Your task to perform on an android device: Clear the shopping cart on newegg.com. Image 0: 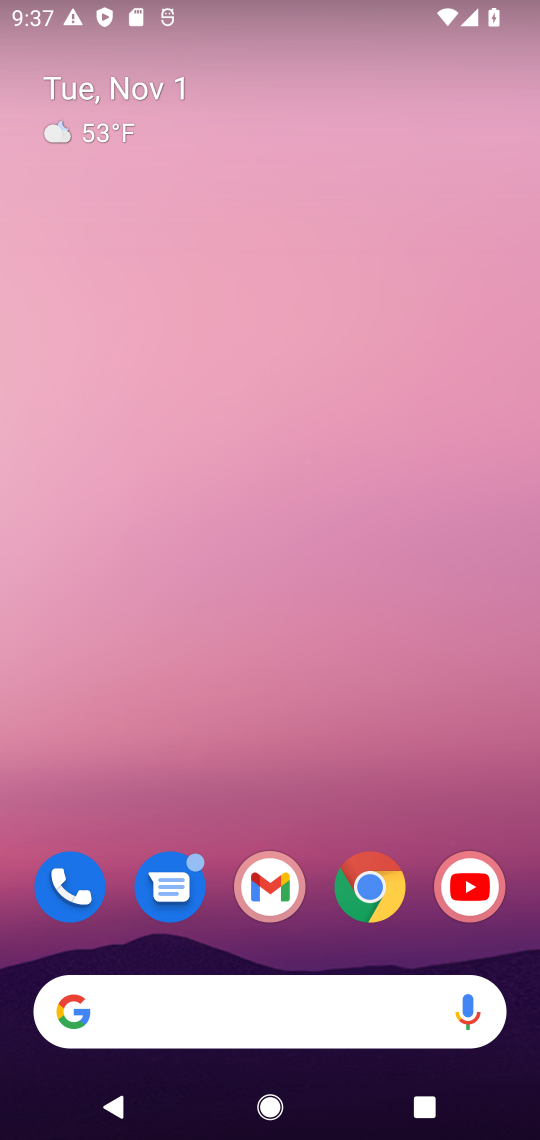
Step 0: drag from (325, 688) to (347, 284)
Your task to perform on an android device: Clear the shopping cart on newegg.com. Image 1: 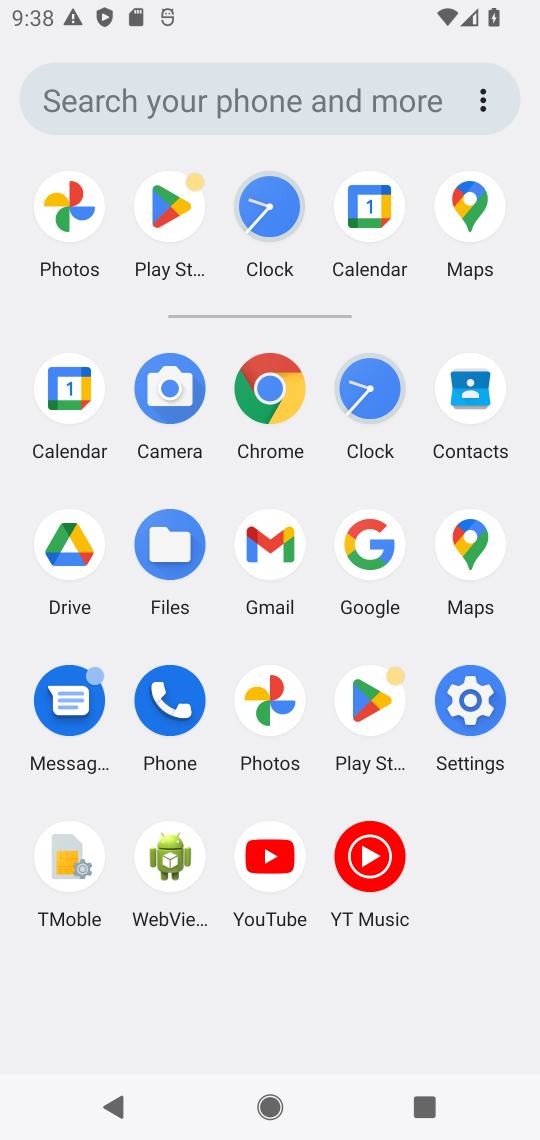
Step 1: click (371, 545)
Your task to perform on an android device: Clear the shopping cart on newegg.com. Image 2: 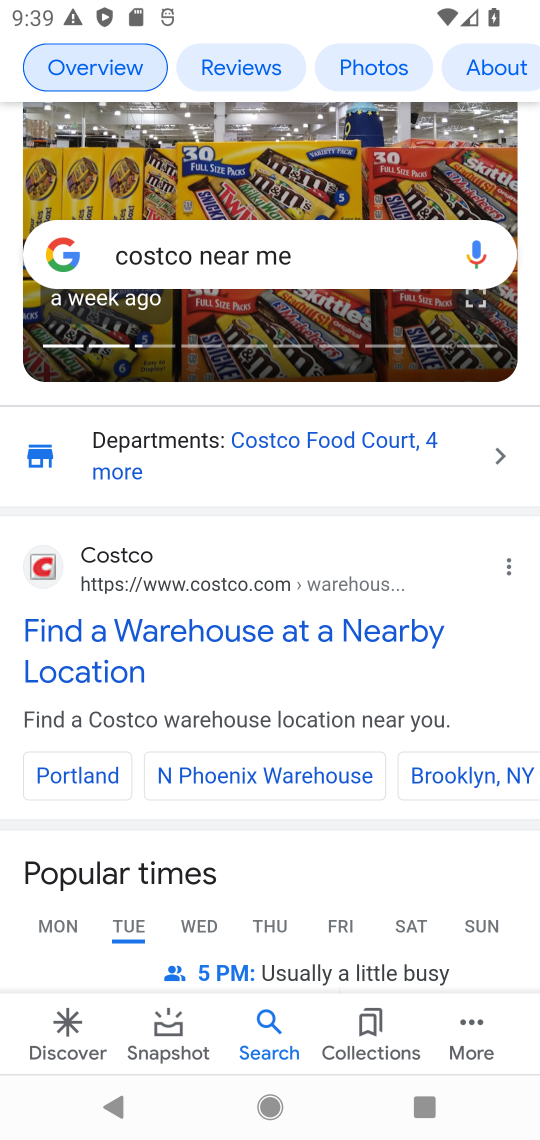
Step 2: drag from (233, 262) to (254, 931)
Your task to perform on an android device: Clear the shopping cart on newegg.com. Image 3: 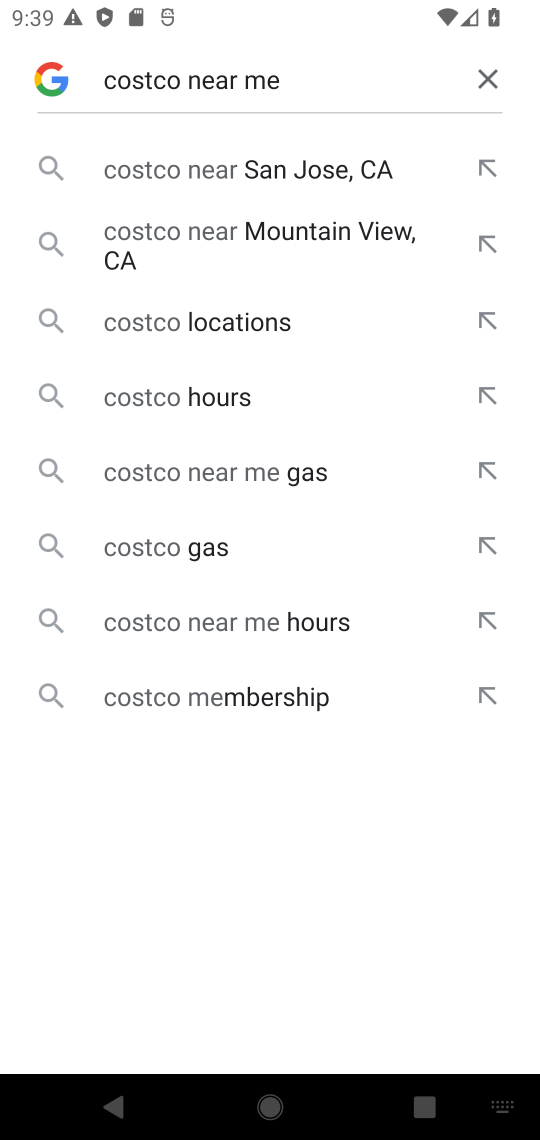
Step 3: click (488, 84)
Your task to perform on an android device: Clear the shopping cart on newegg.com. Image 4: 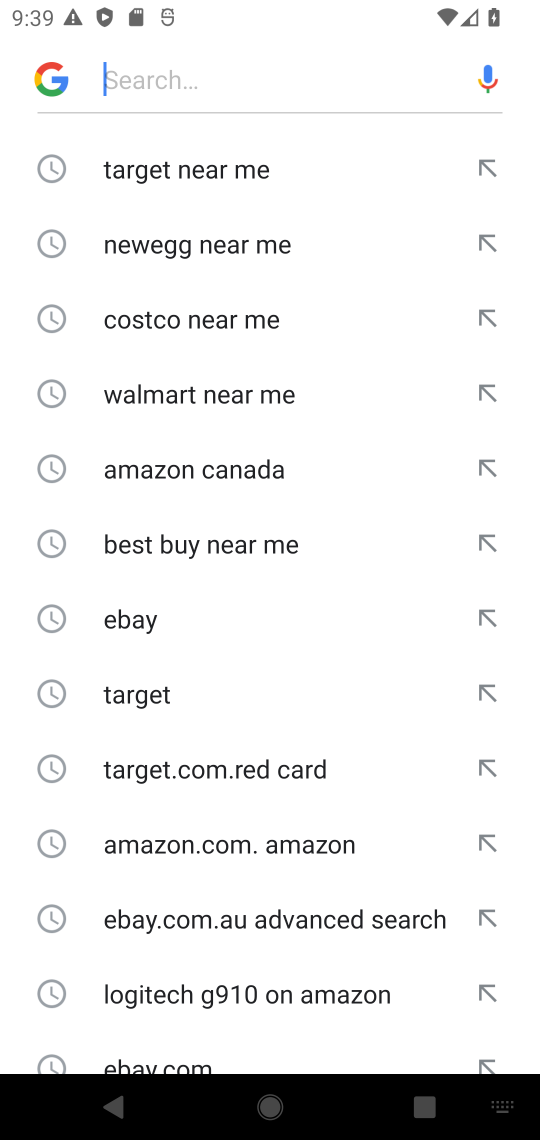
Step 4: click (235, 71)
Your task to perform on an android device: Clear the shopping cart on newegg.com. Image 5: 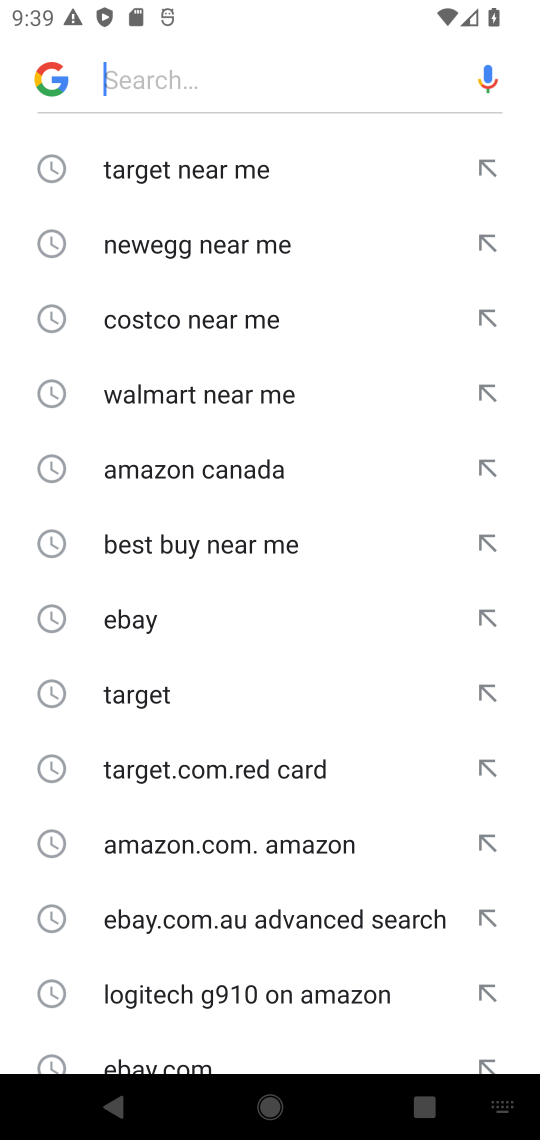
Step 5: type "newegg "
Your task to perform on an android device: Clear the shopping cart on newegg.com. Image 6: 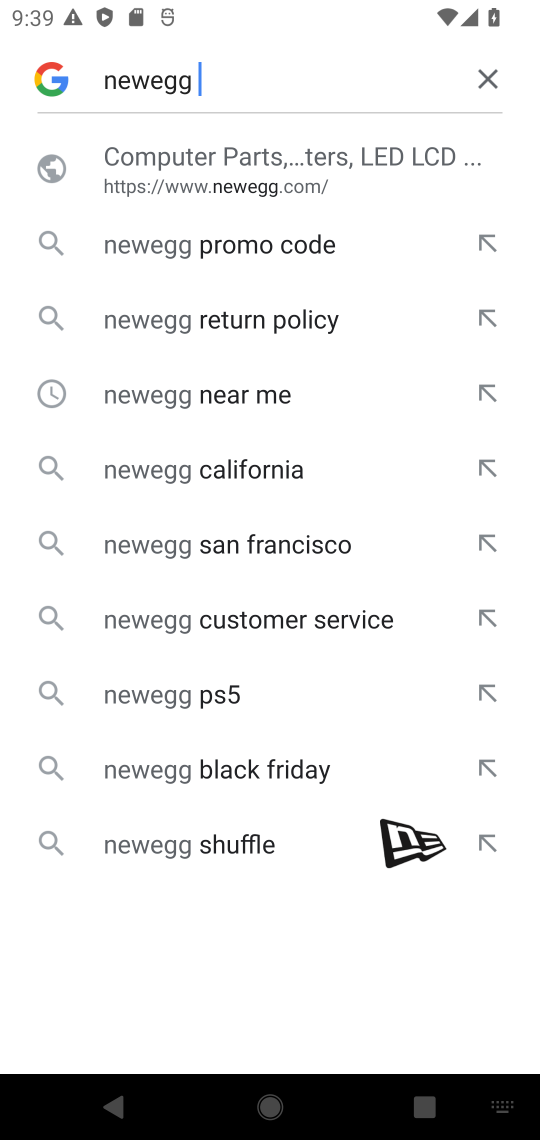
Step 6: click (214, 180)
Your task to perform on an android device: Clear the shopping cart on newegg.com. Image 7: 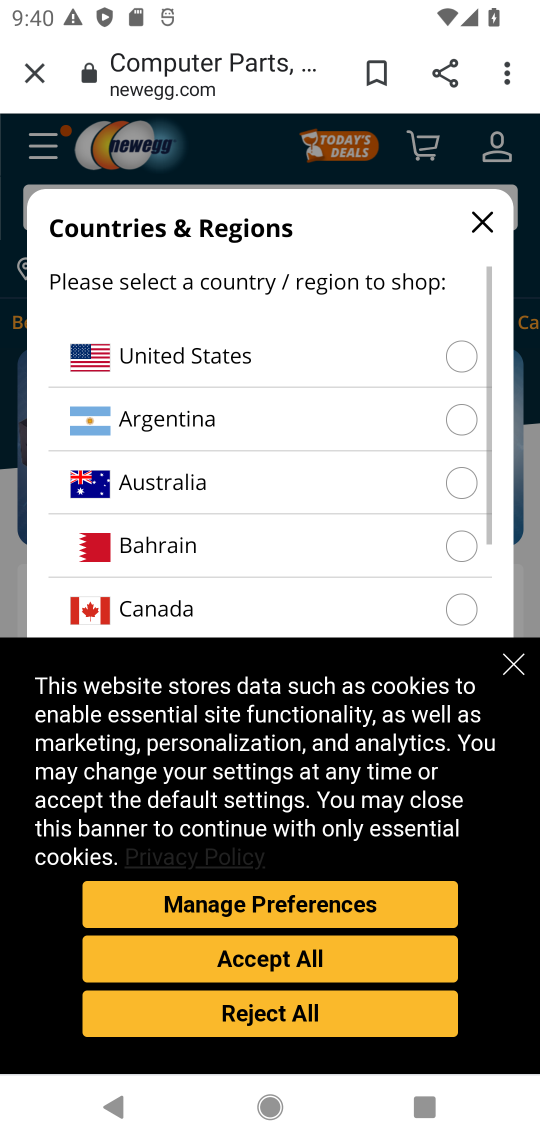
Step 7: click (460, 349)
Your task to perform on an android device: Clear the shopping cart on newegg.com. Image 8: 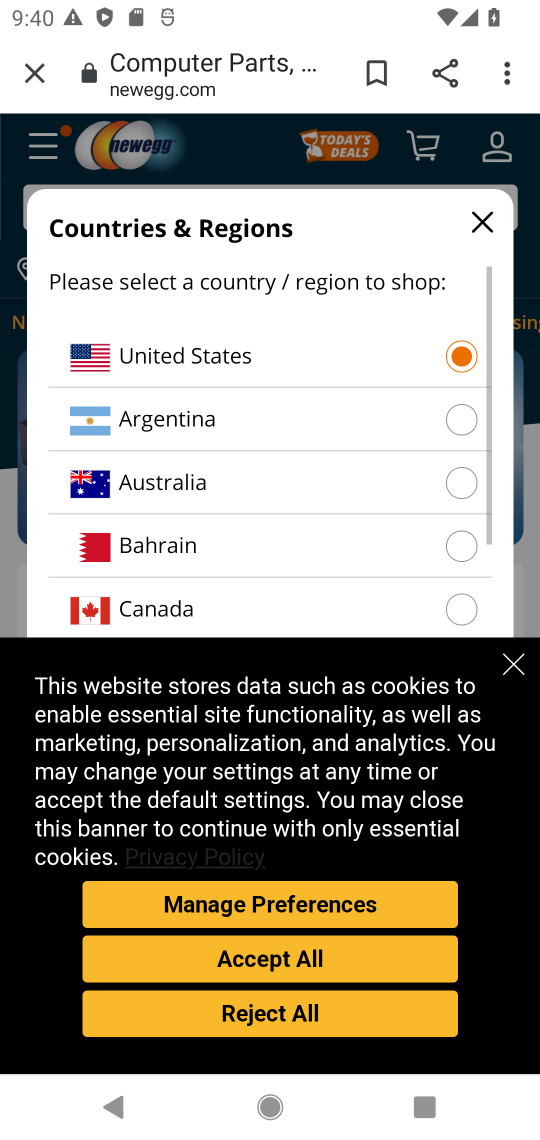
Step 8: click (508, 663)
Your task to perform on an android device: Clear the shopping cart on newegg.com. Image 9: 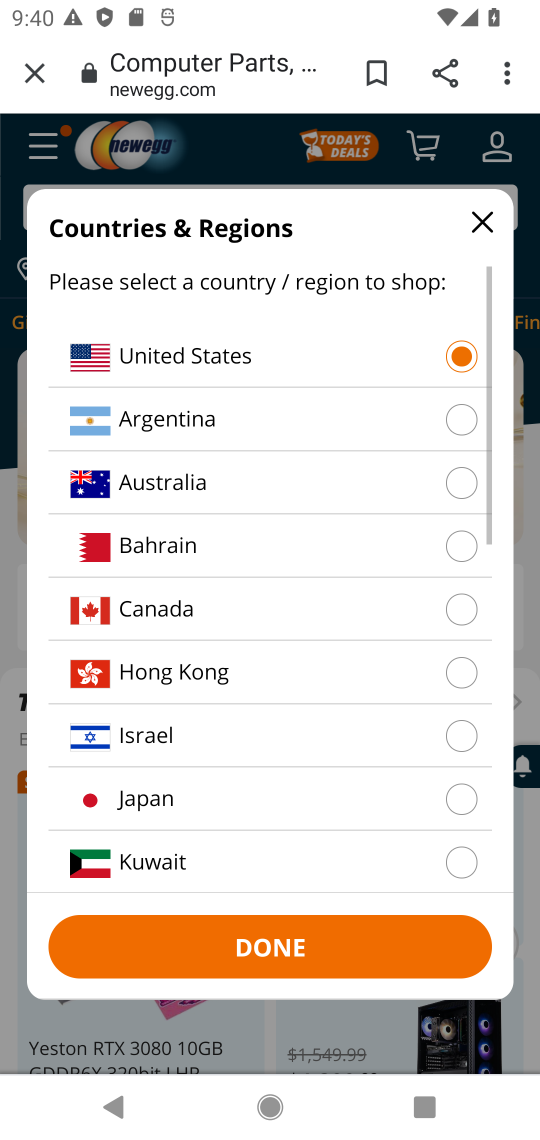
Step 9: click (331, 958)
Your task to perform on an android device: Clear the shopping cart on newegg.com. Image 10: 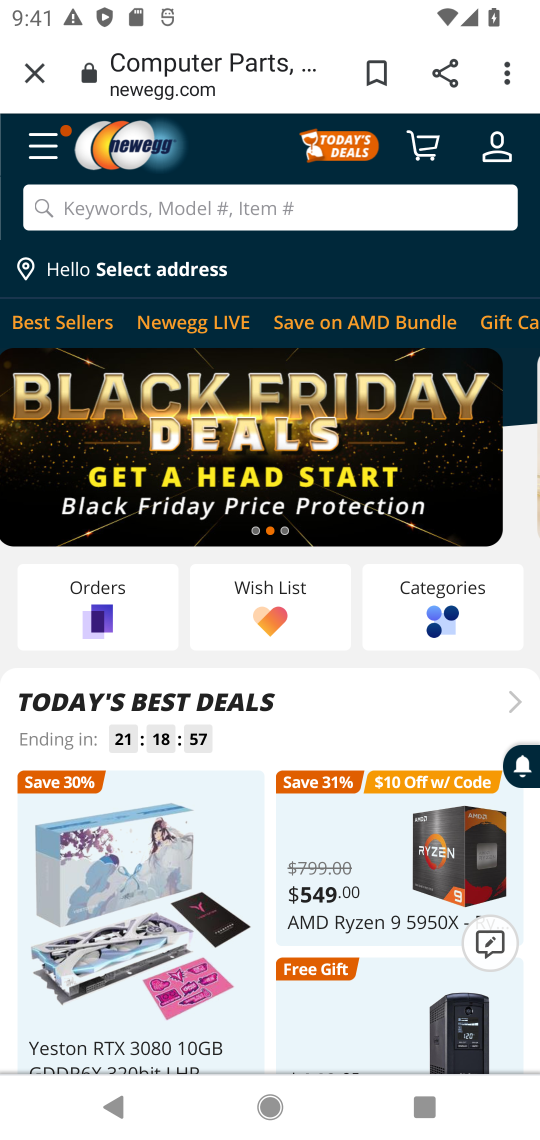
Step 10: click (502, 151)
Your task to perform on an android device: Clear the shopping cart on newegg.com. Image 11: 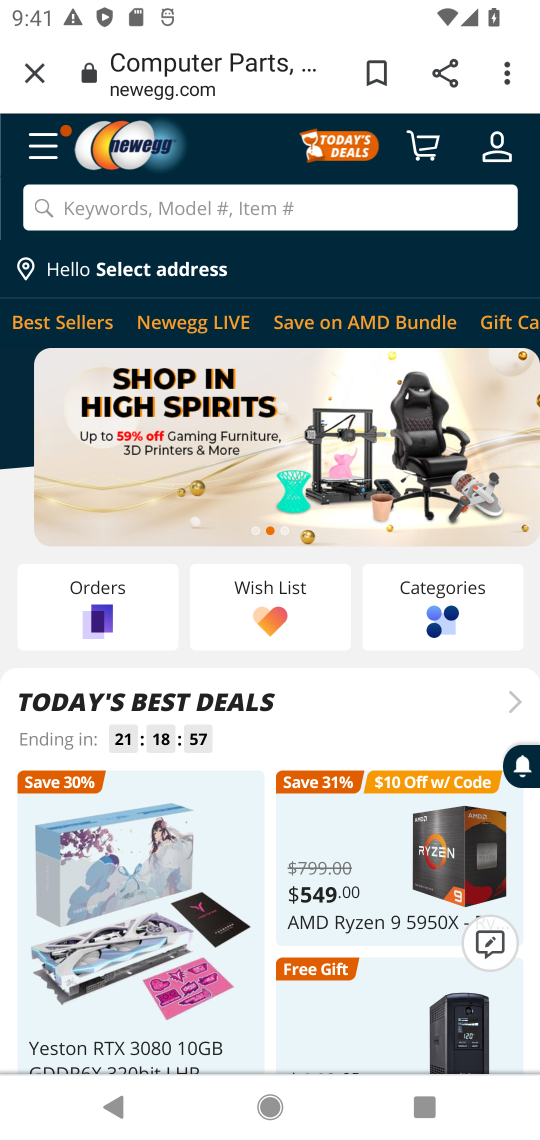
Step 11: click (428, 145)
Your task to perform on an android device: Clear the shopping cart on newegg.com. Image 12: 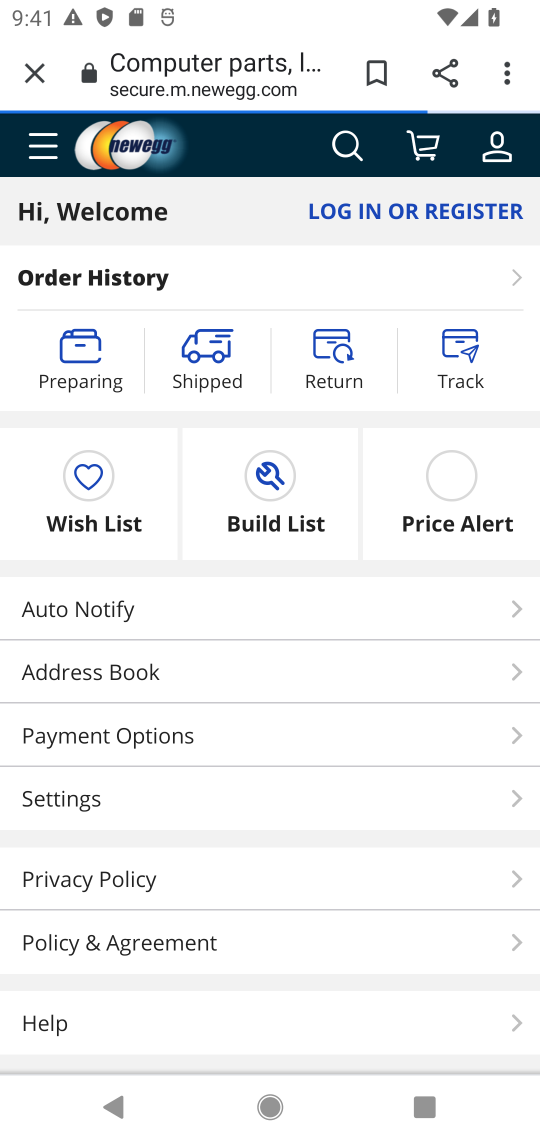
Step 12: task complete